Your task to perform on an android device: Open internet settings Image 0: 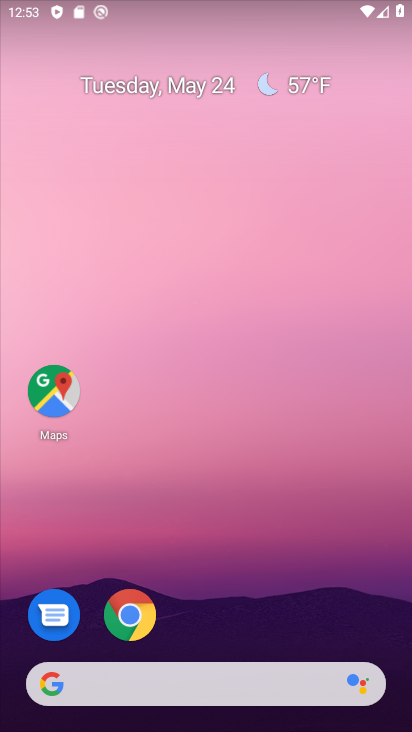
Step 0: drag from (233, 664) to (302, 160)
Your task to perform on an android device: Open internet settings Image 1: 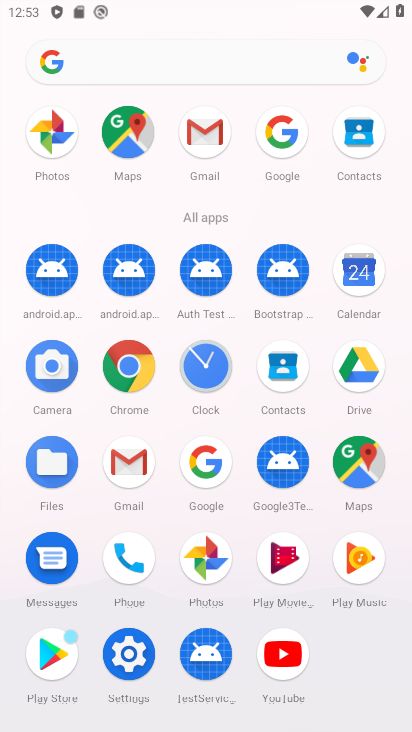
Step 1: click (125, 659)
Your task to perform on an android device: Open internet settings Image 2: 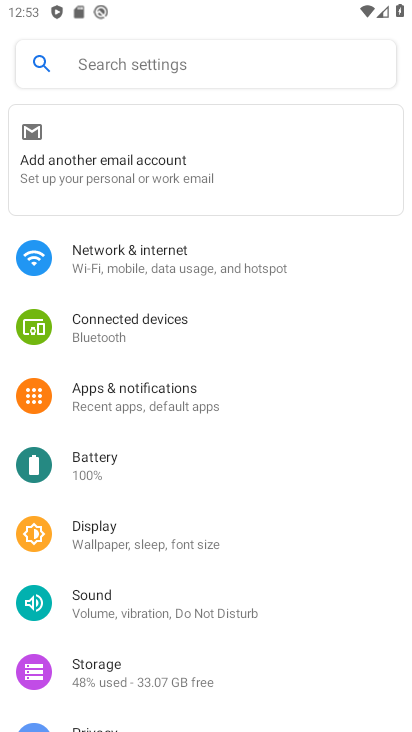
Step 2: click (150, 267)
Your task to perform on an android device: Open internet settings Image 3: 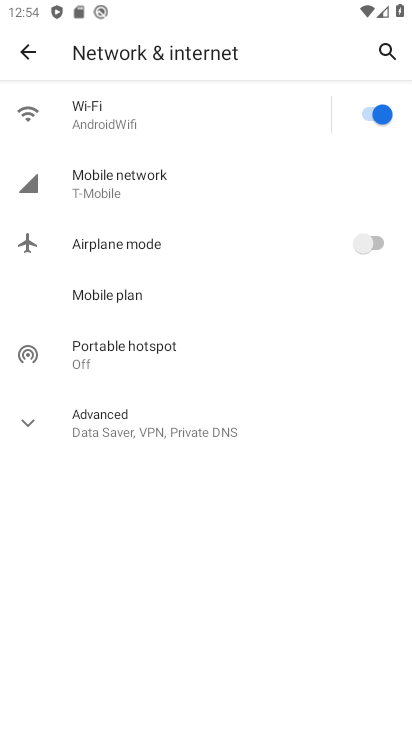
Step 3: click (119, 417)
Your task to perform on an android device: Open internet settings Image 4: 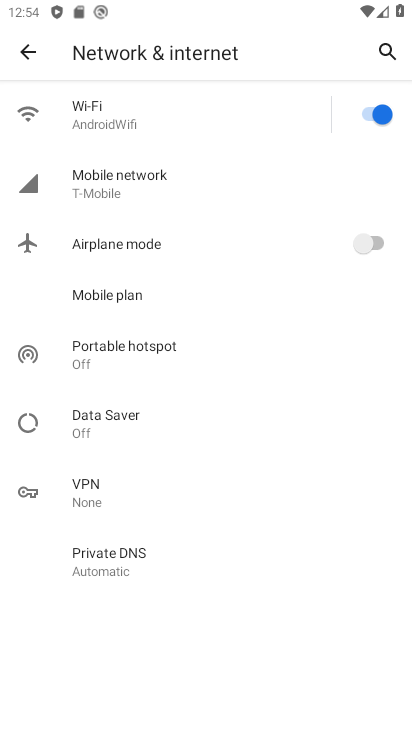
Step 4: click (134, 196)
Your task to perform on an android device: Open internet settings Image 5: 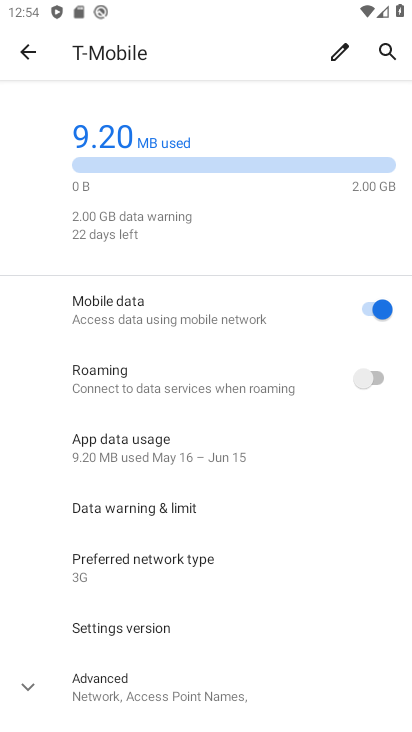
Step 5: click (120, 705)
Your task to perform on an android device: Open internet settings Image 6: 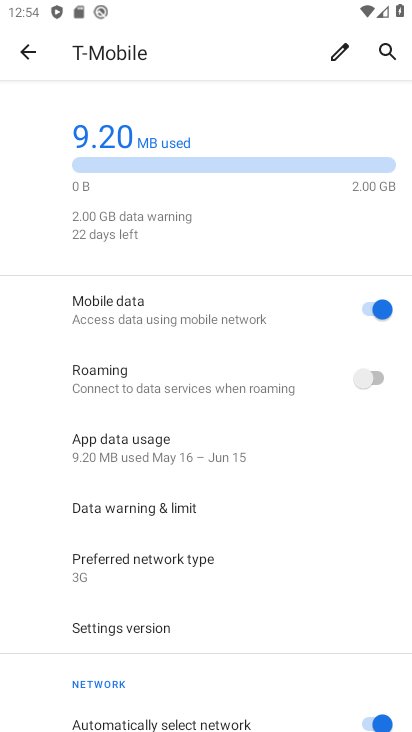
Step 6: task complete